Your task to perform on an android device: open app "VLC for Android" Image 0: 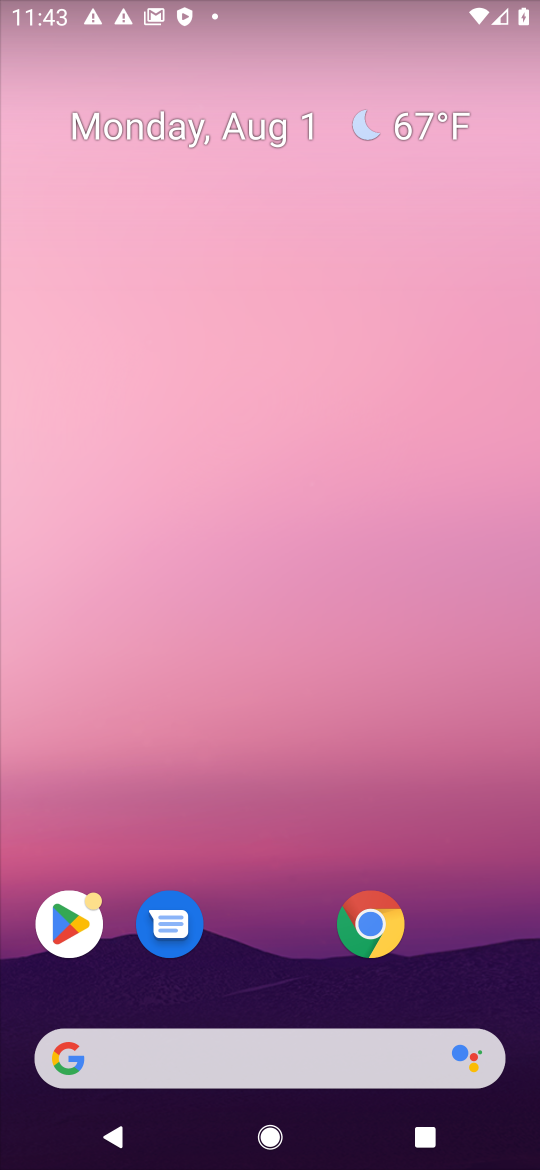
Step 0: click (74, 925)
Your task to perform on an android device: open app "VLC for Android" Image 1: 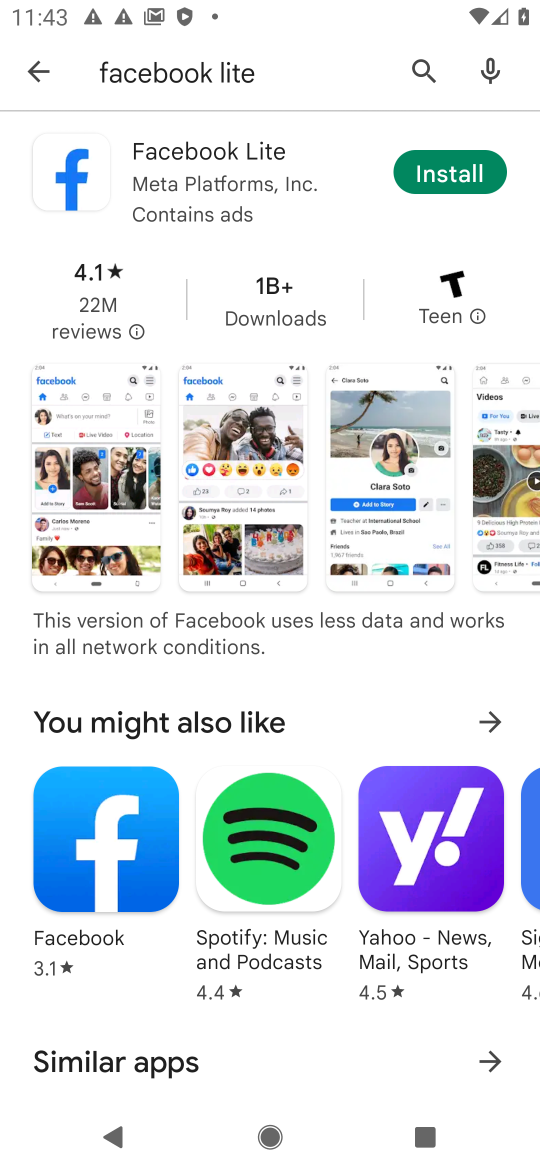
Step 1: click (418, 63)
Your task to perform on an android device: open app "VLC for Android" Image 2: 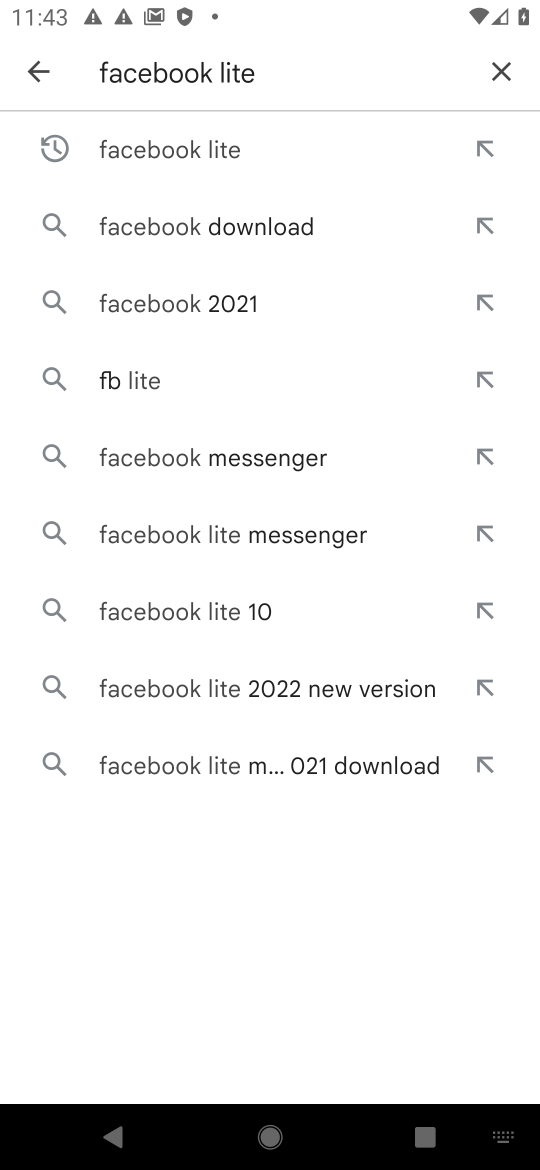
Step 2: click (505, 62)
Your task to perform on an android device: open app "VLC for Android" Image 3: 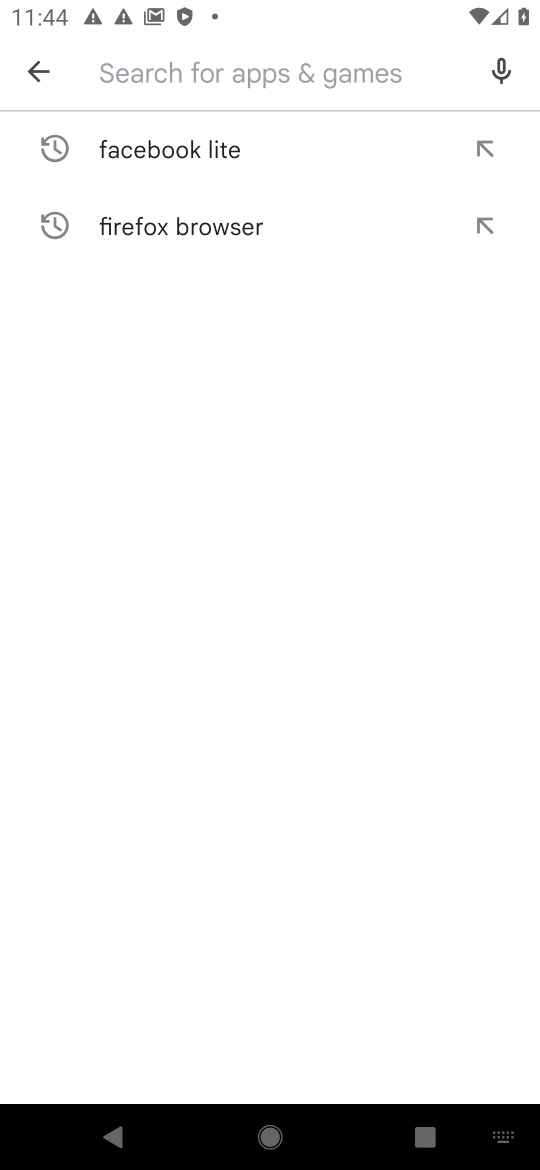
Step 3: type "VLC for Android"
Your task to perform on an android device: open app "VLC for Android" Image 4: 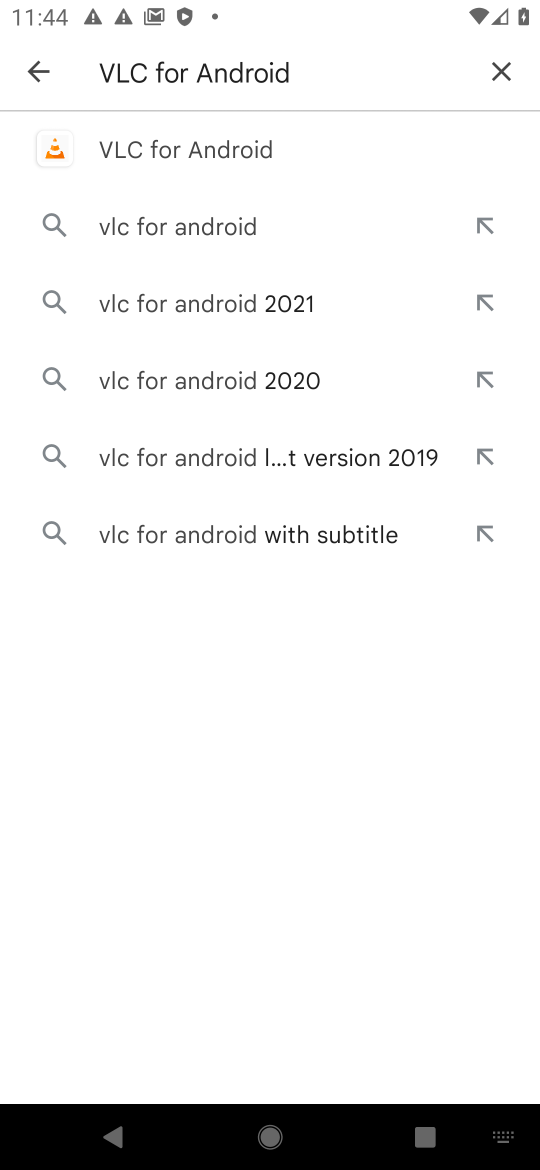
Step 4: click (273, 144)
Your task to perform on an android device: open app "VLC for Android" Image 5: 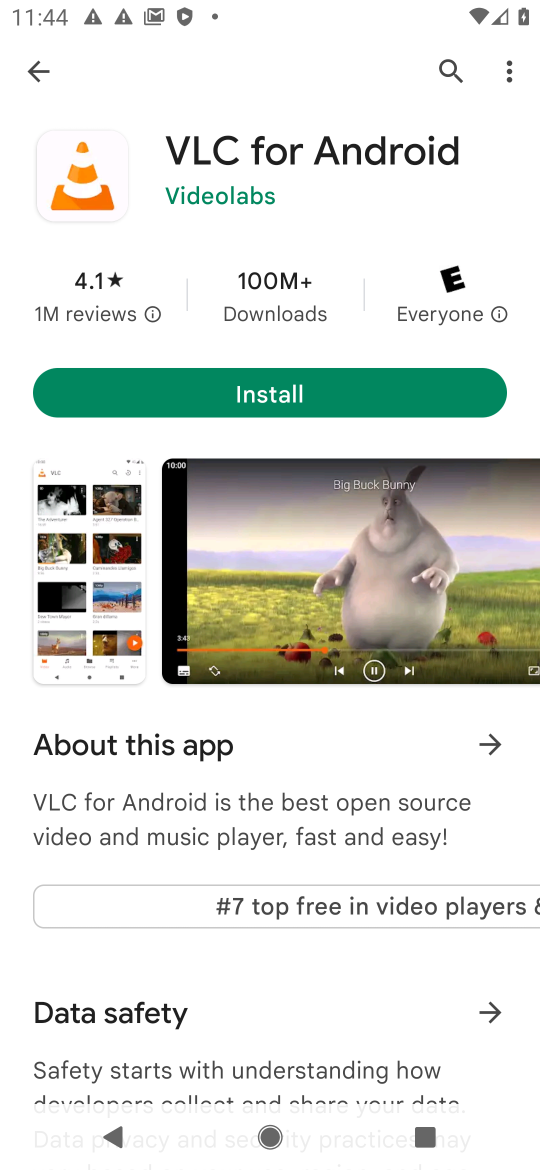
Step 5: task complete